Your task to perform on an android device: manage bookmarks in the chrome app Image 0: 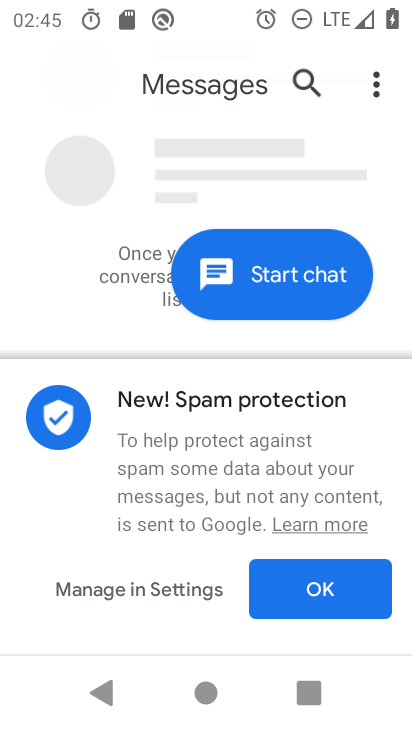
Step 0: press home button
Your task to perform on an android device: manage bookmarks in the chrome app Image 1: 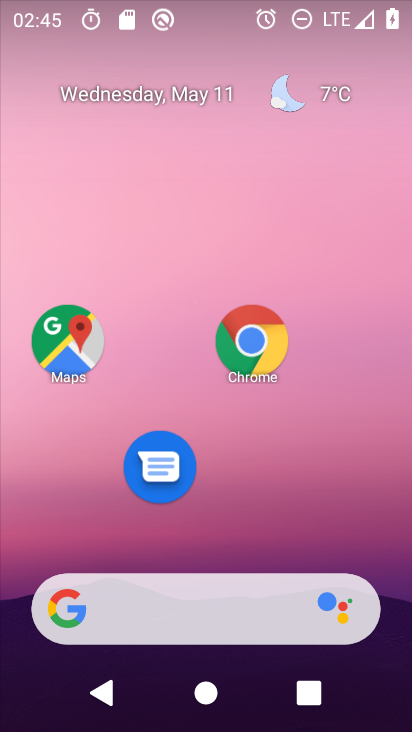
Step 1: drag from (157, 625) to (251, 266)
Your task to perform on an android device: manage bookmarks in the chrome app Image 2: 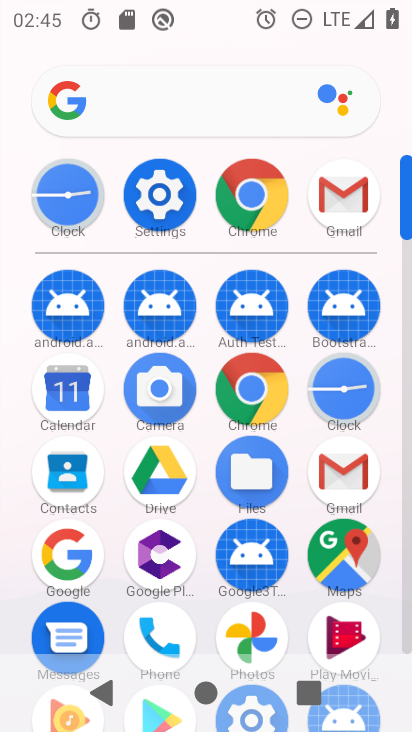
Step 2: click (243, 211)
Your task to perform on an android device: manage bookmarks in the chrome app Image 3: 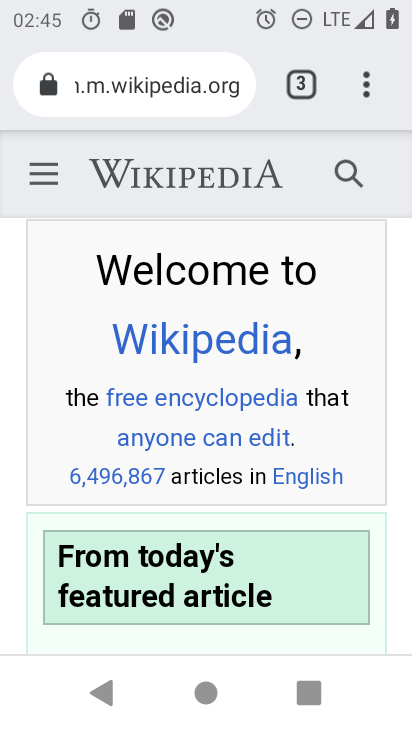
Step 3: task complete